Your task to perform on an android device: check out phone information Image 0: 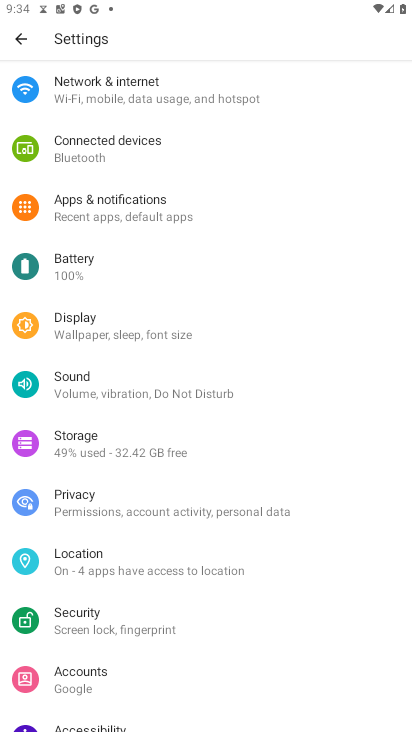
Step 0: drag from (153, 602) to (198, 483)
Your task to perform on an android device: check out phone information Image 1: 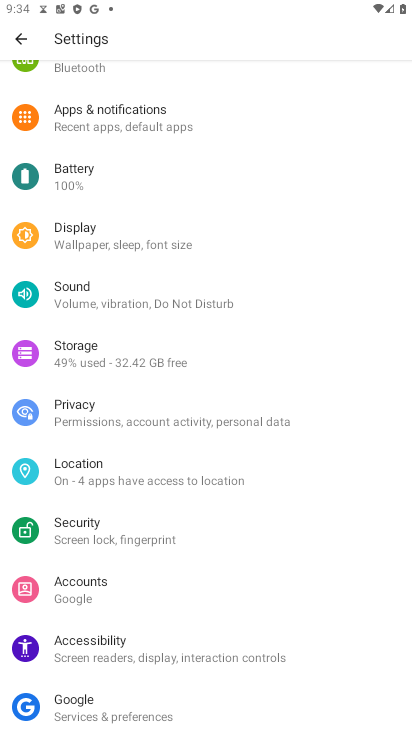
Step 1: drag from (146, 628) to (195, 506)
Your task to perform on an android device: check out phone information Image 2: 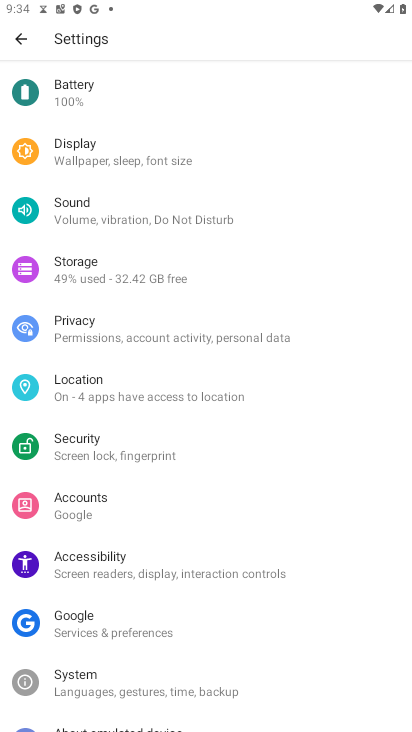
Step 2: drag from (117, 671) to (211, 552)
Your task to perform on an android device: check out phone information Image 3: 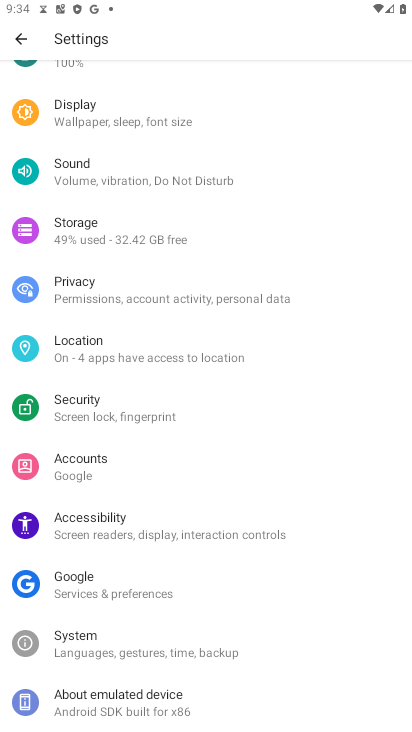
Step 3: click (102, 697)
Your task to perform on an android device: check out phone information Image 4: 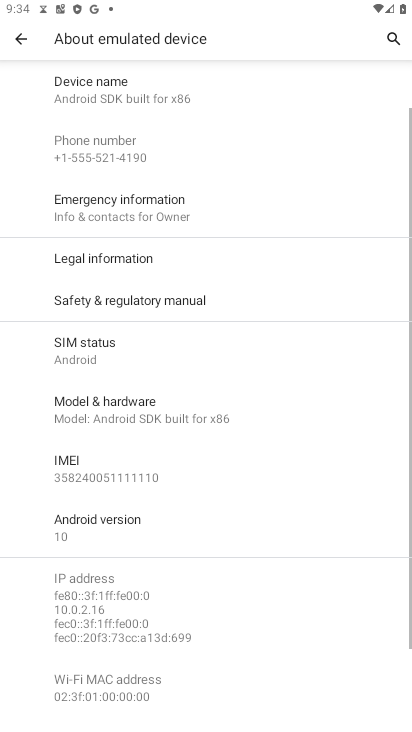
Step 4: task complete